Your task to perform on an android device: View the shopping cart on walmart. Add apple airpods pro to the cart on walmart Image 0: 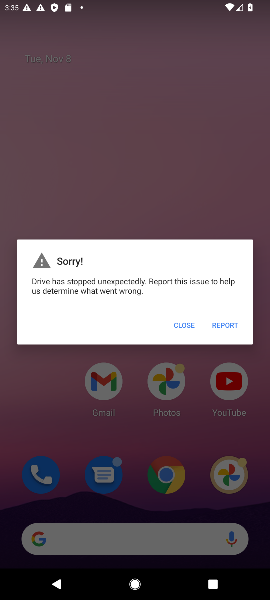
Step 0: click (173, 326)
Your task to perform on an android device: View the shopping cart on walmart. Add apple airpods pro to the cart on walmart Image 1: 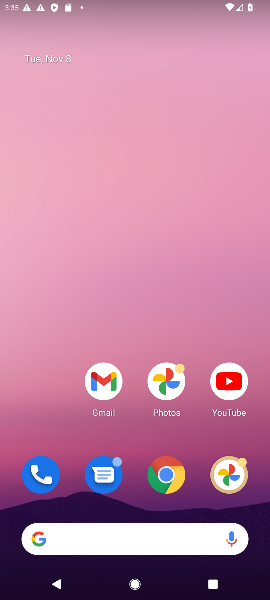
Step 1: drag from (113, 529) to (126, 209)
Your task to perform on an android device: View the shopping cart on walmart. Add apple airpods pro to the cart on walmart Image 2: 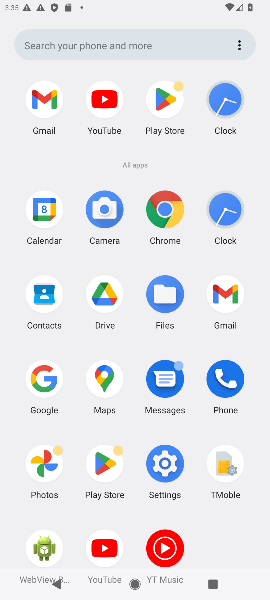
Step 2: click (40, 390)
Your task to perform on an android device: View the shopping cart on walmart. Add apple airpods pro to the cart on walmart Image 3: 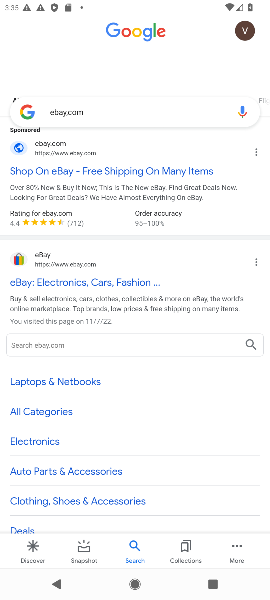
Step 3: click (100, 102)
Your task to perform on an android device: View the shopping cart on walmart. Add apple airpods pro to the cart on walmart Image 4: 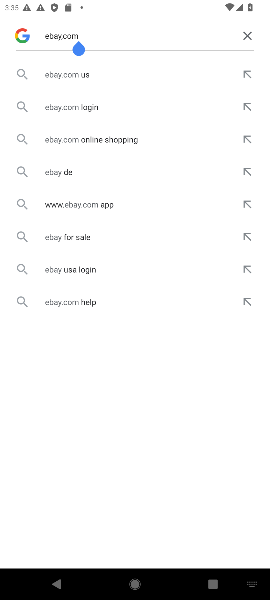
Step 4: click (246, 31)
Your task to perform on an android device: View the shopping cart on walmart. Add apple airpods pro to the cart on walmart Image 5: 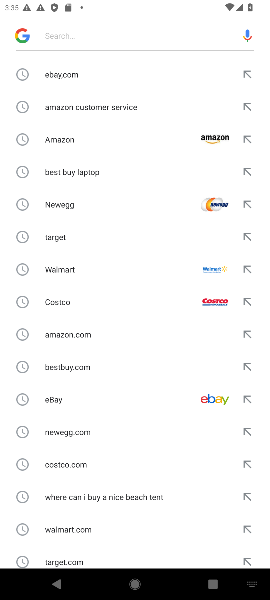
Step 5: click (103, 31)
Your task to perform on an android device: View the shopping cart on walmart. Add apple airpods pro to the cart on walmart Image 6: 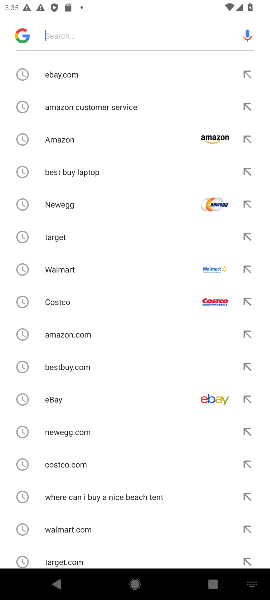
Step 6: type "walmart "
Your task to perform on an android device: View the shopping cart on walmart. Add apple airpods pro to the cart on walmart Image 7: 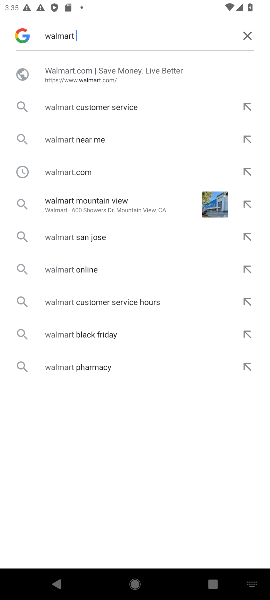
Step 7: click (104, 75)
Your task to perform on an android device: View the shopping cart on walmart. Add apple airpods pro to the cart on walmart Image 8: 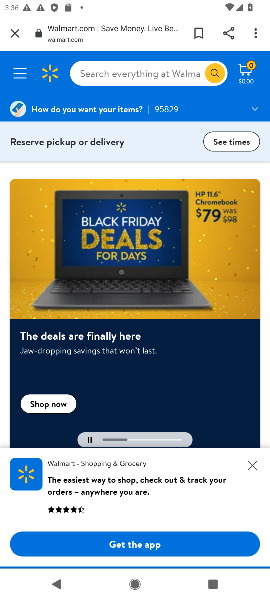
Step 8: click (248, 466)
Your task to perform on an android device: View the shopping cart on walmart. Add apple airpods pro to the cart on walmart Image 9: 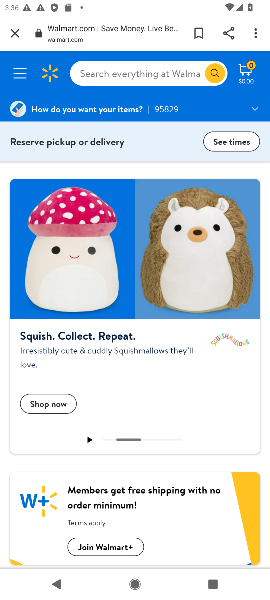
Step 9: drag from (162, 412) to (168, 523)
Your task to perform on an android device: View the shopping cart on walmart. Add apple airpods pro to the cart on walmart Image 10: 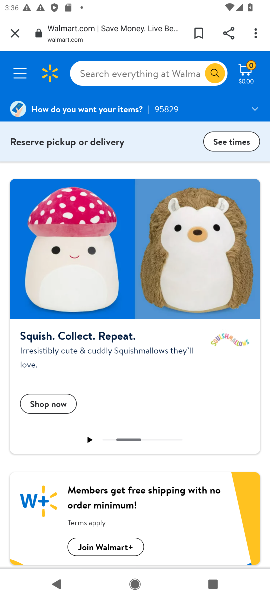
Step 10: click (111, 66)
Your task to perform on an android device: View the shopping cart on walmart. Add apple airpods pro to the cart on walmart Image 11: 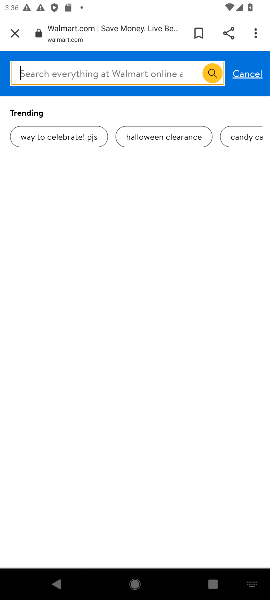
Step 11: type "apple airpods "
Your task to perform on an android device: View the shopping cart on walmart. Add apple airpods pro to the cart on walmart Image 12: 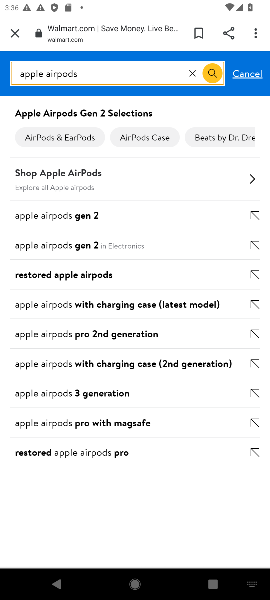
Step 12: click (86, 170)
Your task to perform on an android device: View the shopping cart on walmart. Add apple airpods pro to the cart on walmart Image 13: 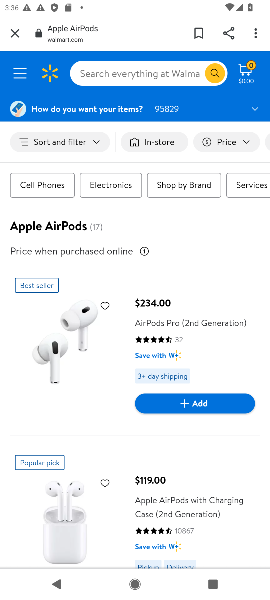
Step 13: click (160, 407)
Your task to perform on an android device: View the shopping cart on walmart. Add apple airpods pro to the cart on walmart Image 14: 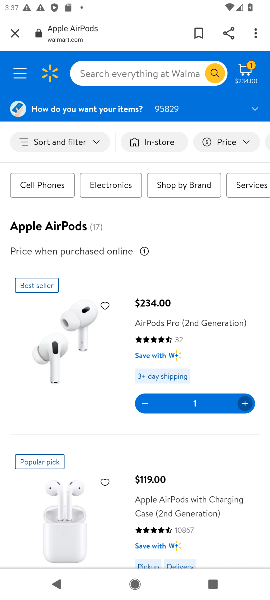
Step 14: task complete